Your task to perform on an android device: Open the phone app and click the voicemail tab. Image 0: 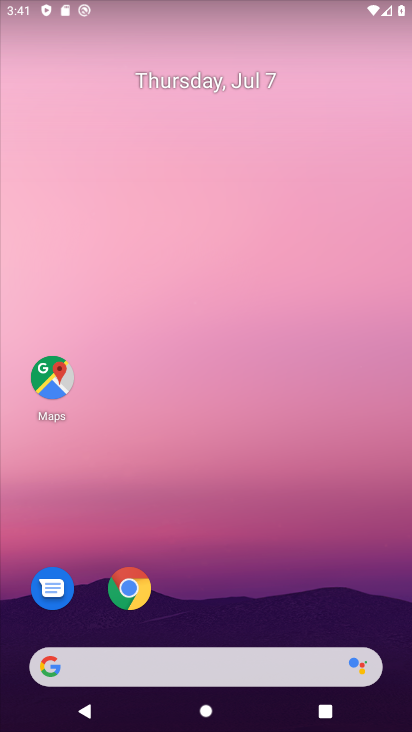
Step 0: press home button
Your task to perform on an android device: Open the phone app and click the voicemail tab. Image 1: 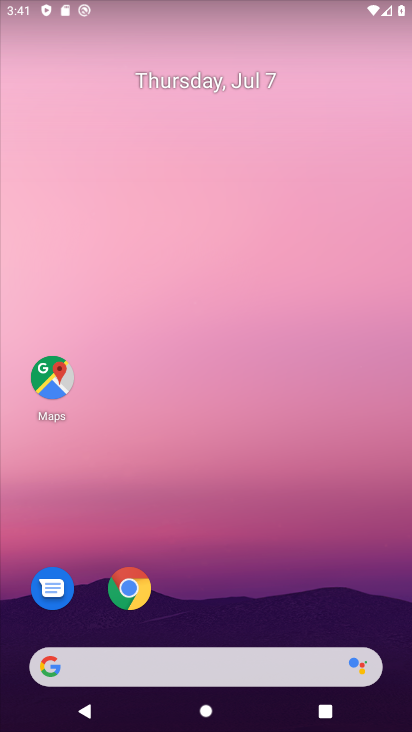
Step 1: drag from (205, 509) to (157, 201)
Your task to perform on an android device: Open the phone app and click the voicemail tab. Image 2: 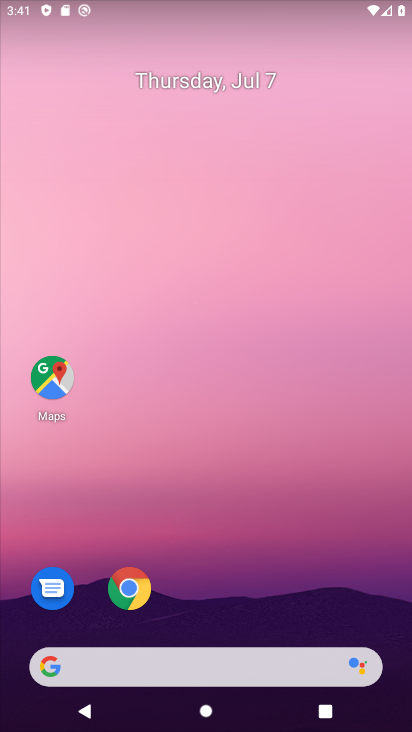
Step 2: drag from (261, 619) to (216, 192)
Your task to perform on an android device: Open the phone app and click the voicemail tab. Image 3: 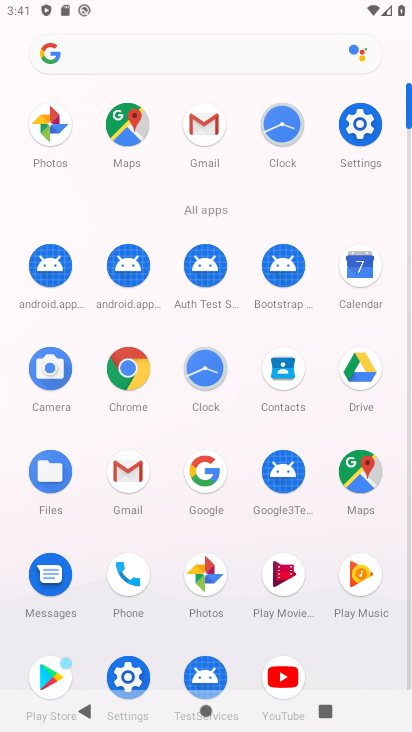
Step 3: click (127, 570)
Your task to perform on an android device: Open the phone app and click the voicemail tab. Image 4: 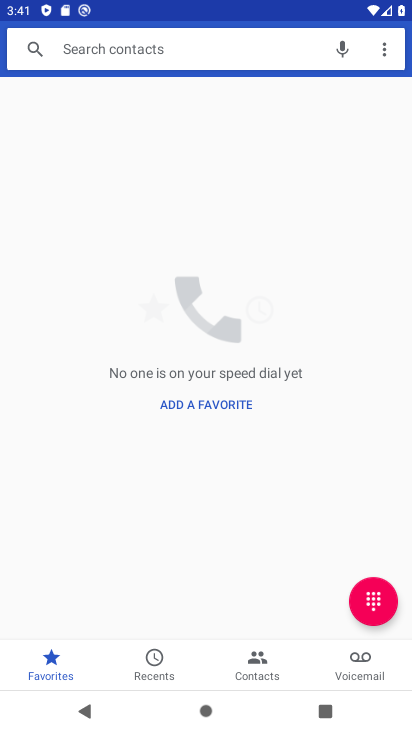
Step 4: click (358, 666)
Your task to perform on an android device: Open the phone app and click the voicemail tab. Image 5: 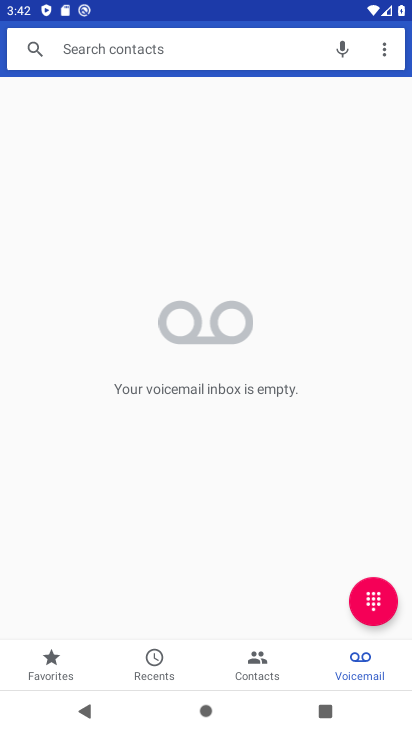
Step 5: task complete